Your task to perform on an android device: open device folders in google photos Image 0: 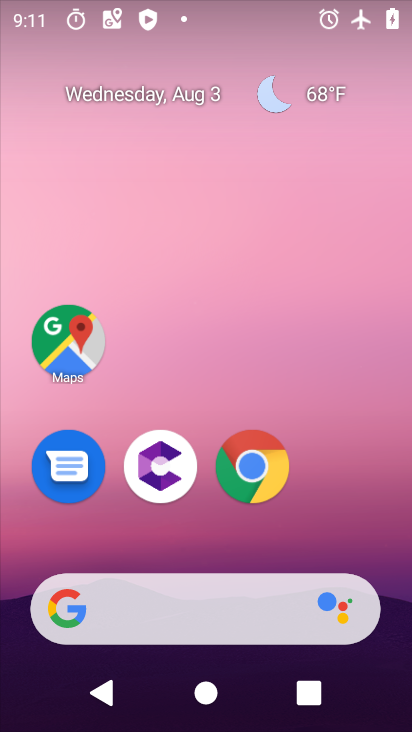
Step 0: drag from (358, 478) to (367, 29)
Your task to perform on an android device: open device folders in google photos Image 1: 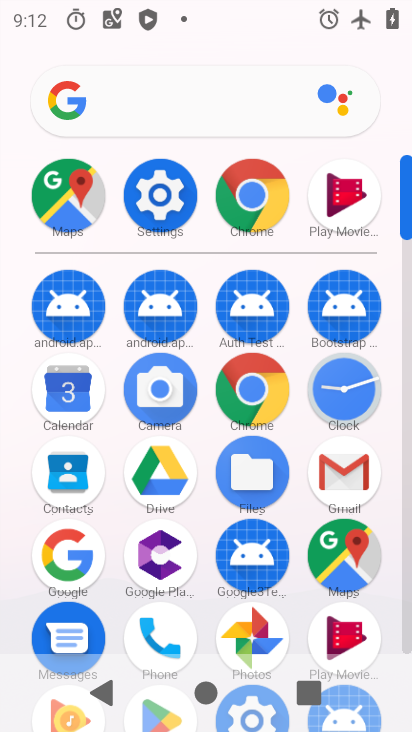
Step 1: drag from (205, 608) to (220, 337)
Your task to perform on an android device: open device folders in google photos Image 2: 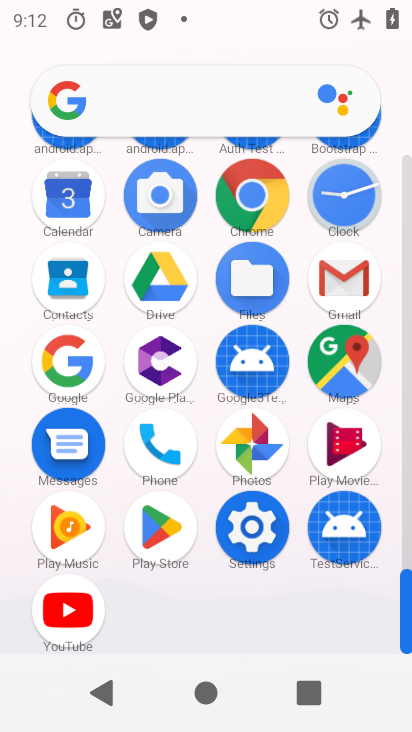
Step 2: click (248, 452)
Your task to perform on an android device: open device folders in google photos Image 3: 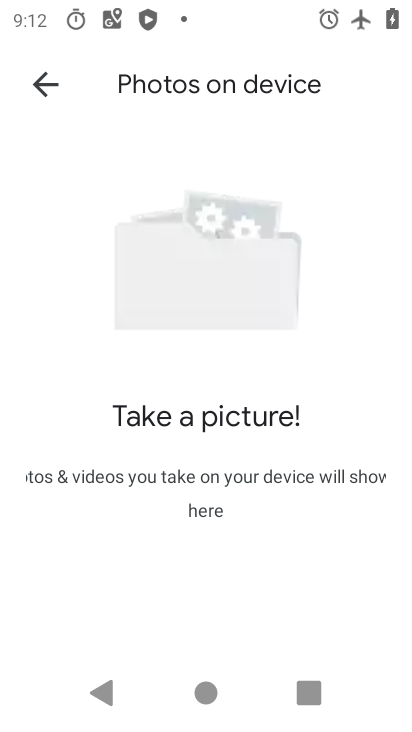
Step 3: task complete